Your task to perform on an android device: Go to Google maps Image 0: 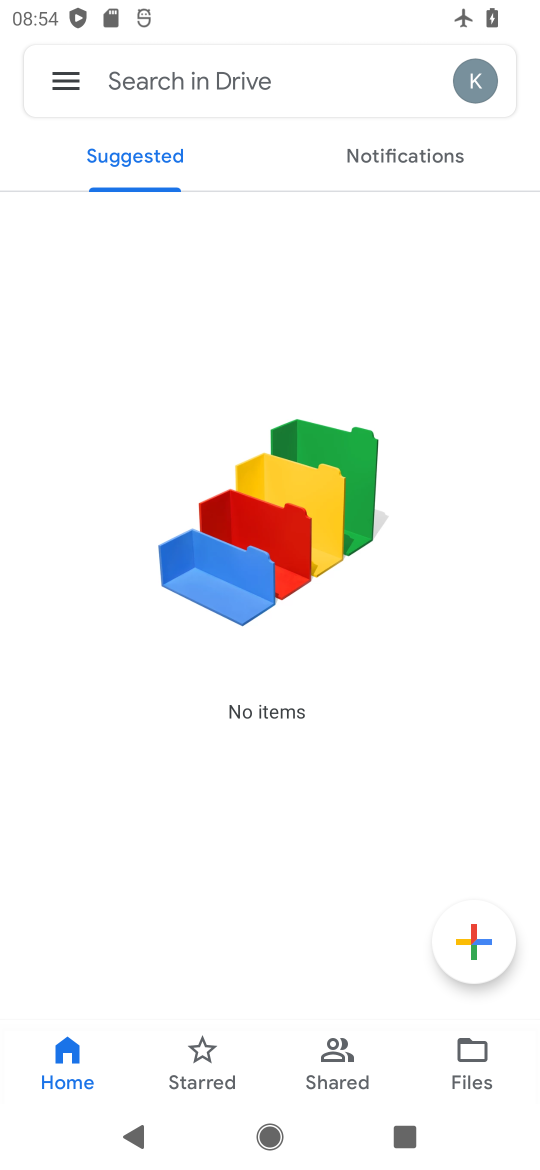
Step 0: press home button
Your task to perform on an android device: Go to Google maps Image 1: 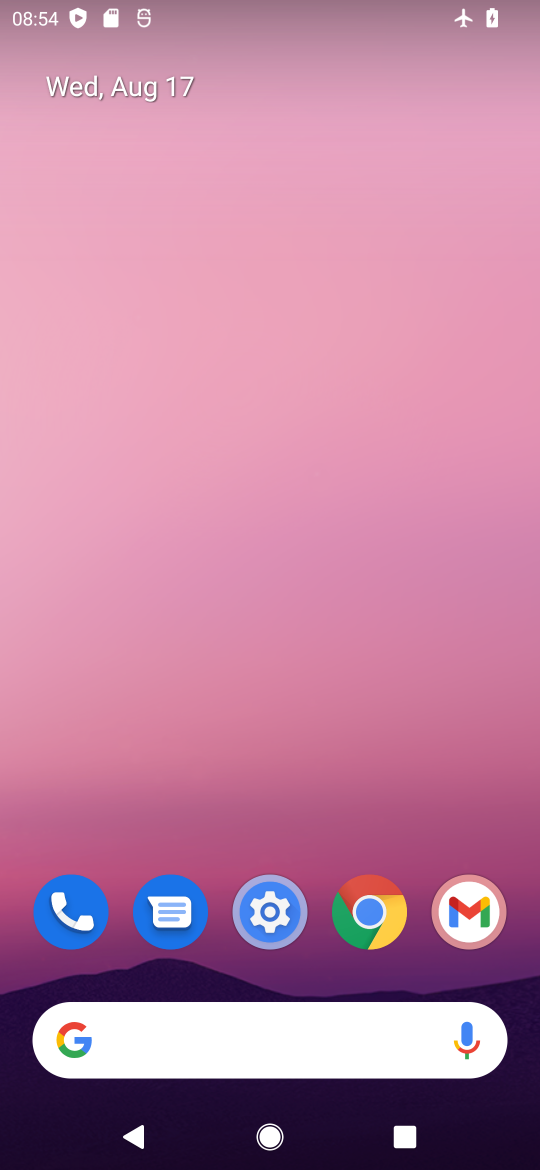
Step 1: drag from (249, 467) to (261, 101)
Your task to perform on an android device: Go to Google maps Image 2: 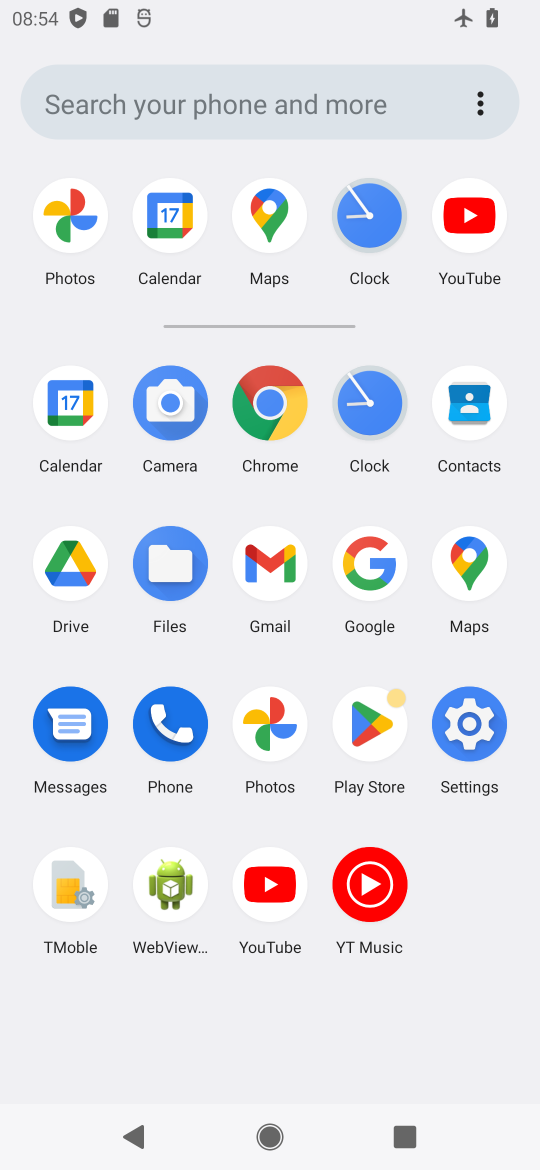
Step 2: click (441, 562)
Your task to perform on an android device: Go to Google maps Image 3: 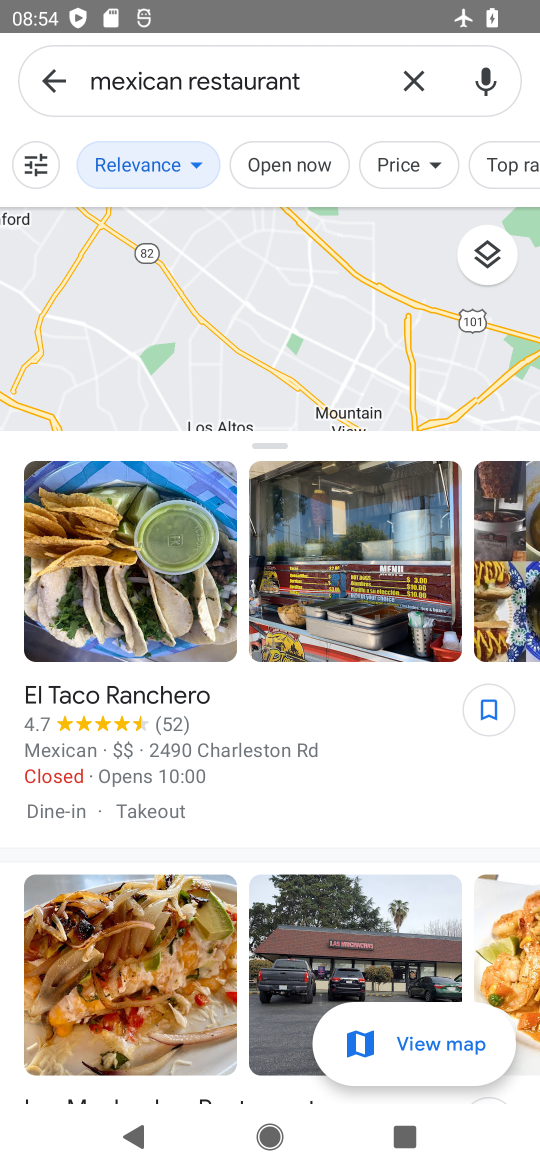
Step 3: click (443, 88)
Your task to perform on an android device: Go to Google maps Image 4: 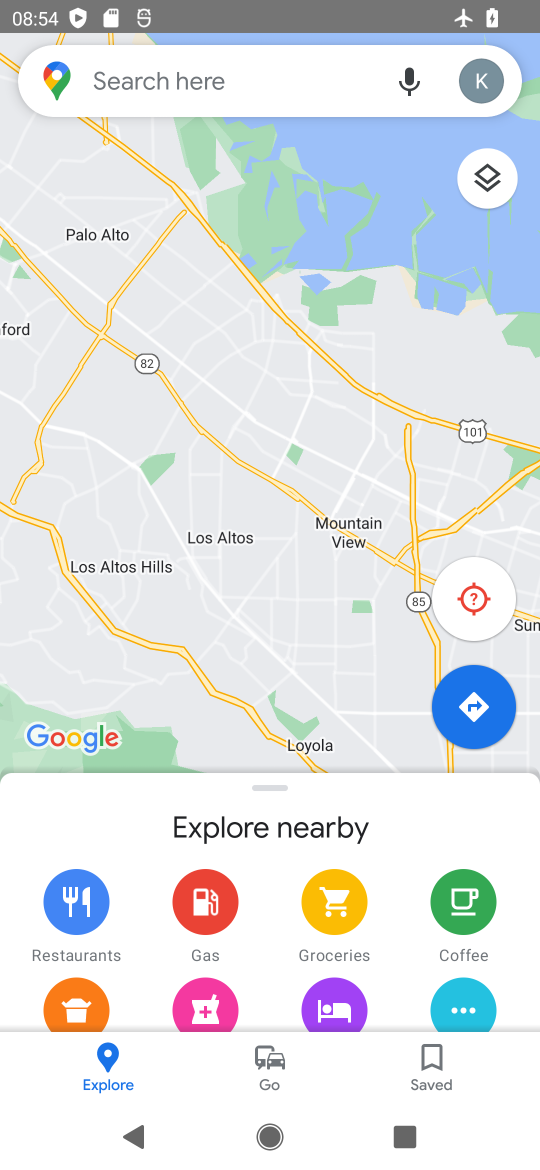
Step 4: task complete